Your task to perform on an android device: Toggle the flashlight Image 0: 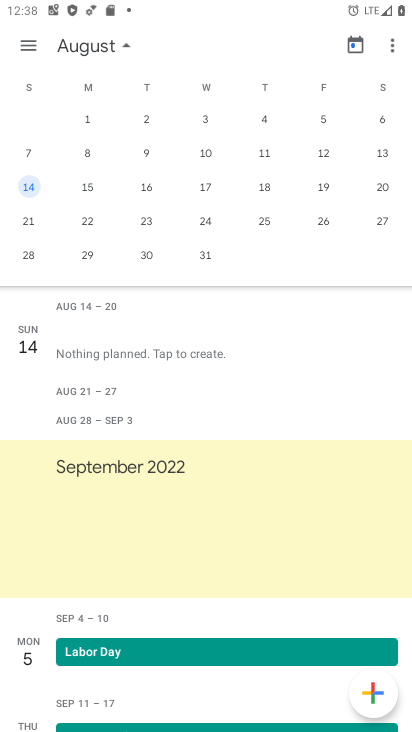
Step 0: press home button
Your task to perform on an android device: Toggle the flashlight Image 1: 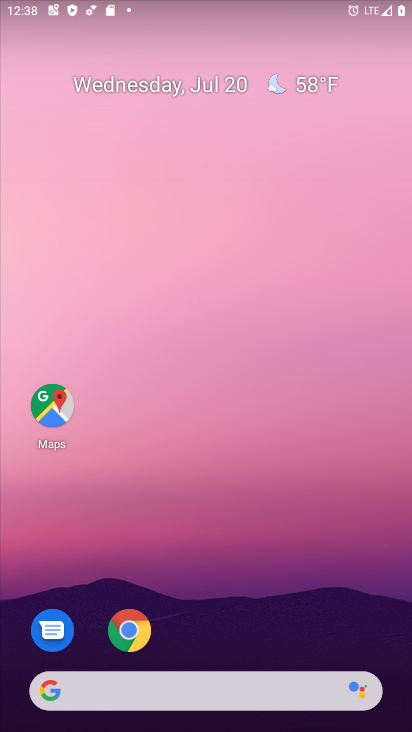
Step 1: task complete